Your task to perform on an android device: Open Yahoo.com Image 0: 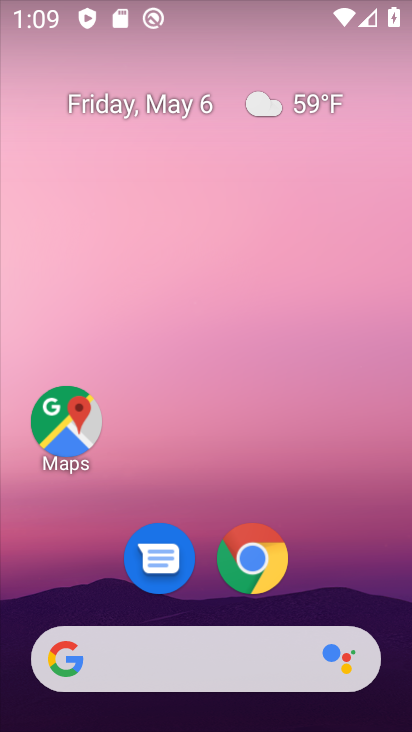
Step 0: click (255, 561)
Your task to perform on an android device: Open Yahoo.com Image 1: 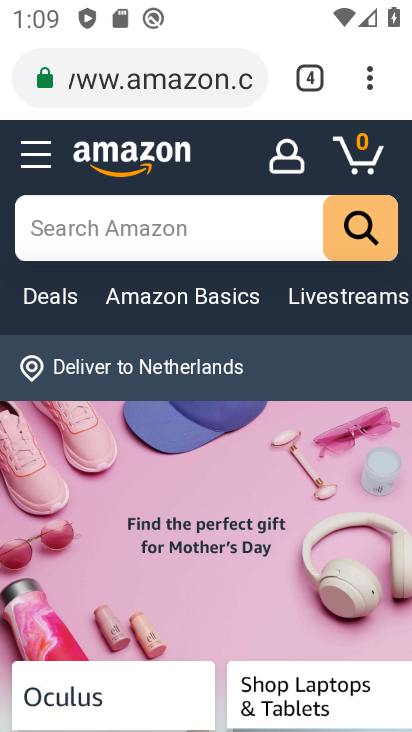
Step 1: drag from (367, 73) to (162, 143)
Your task to perform on an android device: Open Yahoo.com Image 2: 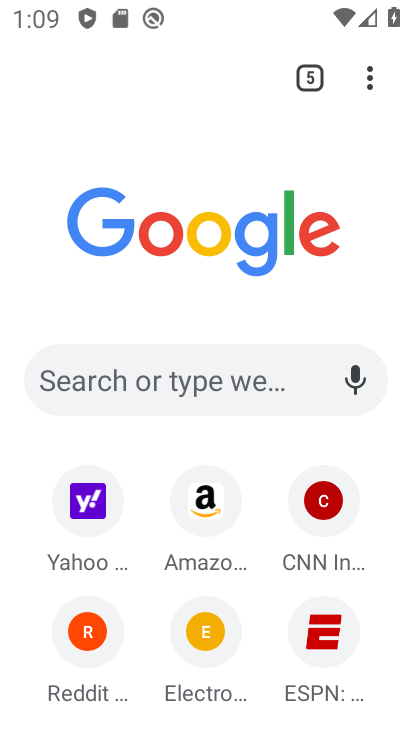
Step 2: click (84, 502)
Your task to perform on an android device: Open Yahoo.com Image 3: 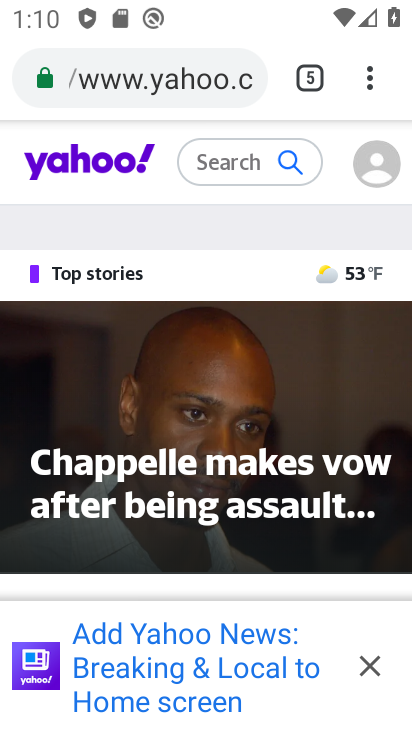
Step 3: task complete